Your task to perform on an android device: Turn on notifications for the Google Maps app Image 0: 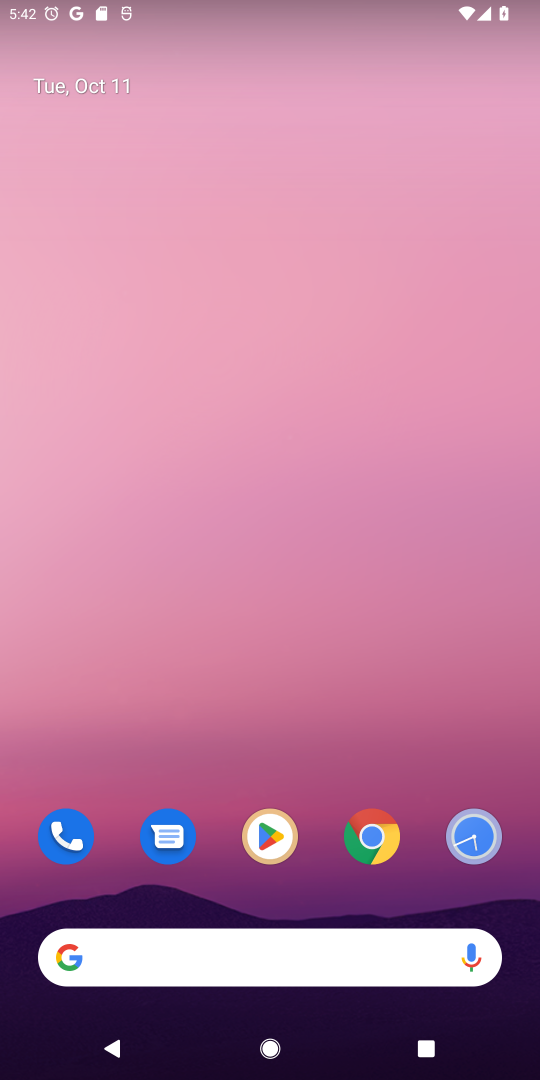
Step 0: drag from (308, 916) to (414, 224)
Your task to perform on an android device: Turn on notifications for the Google Maps app Image 1: 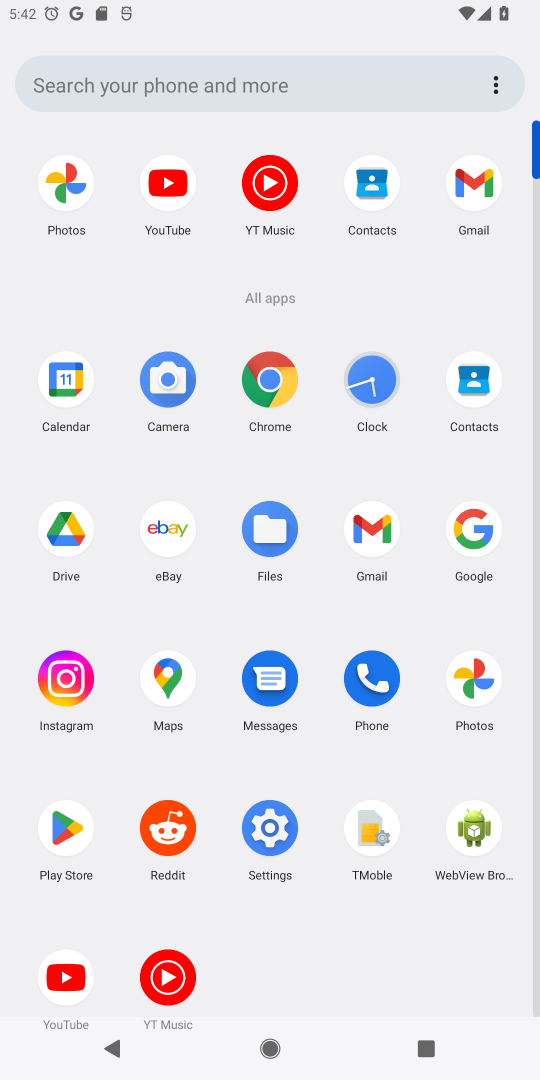
Step 1: click (147, 704)
Your task to perform on an android device: Turn on notifications for the Google Maps app Image 2: 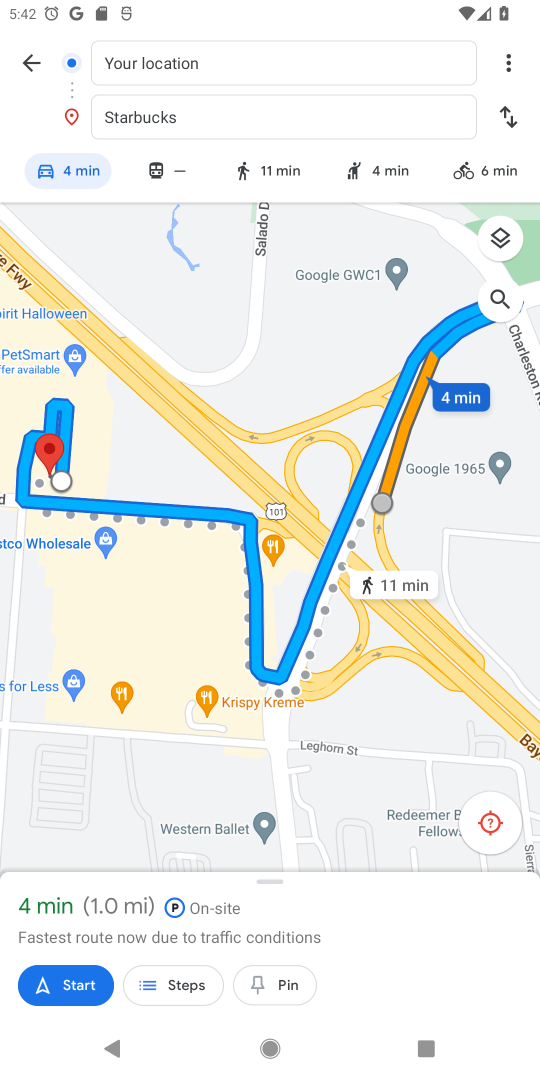
Step 2: task complete